Your task to perform on an android device: Go to location settings Image 0: 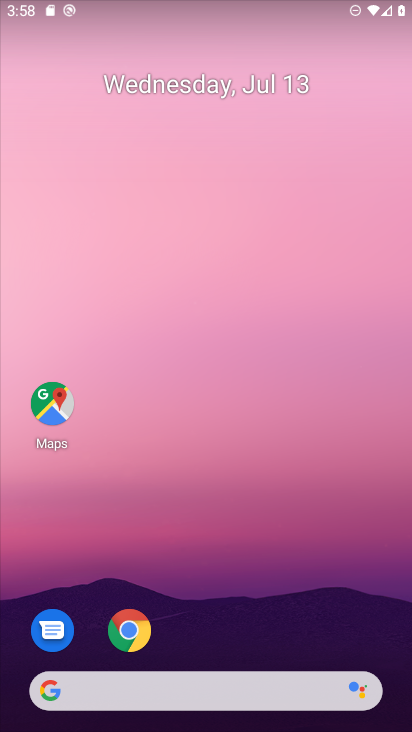
Step 0: drag from (214, 490) to (144, 13)
Your task to perform on an android device: Go to location settings Image 1: 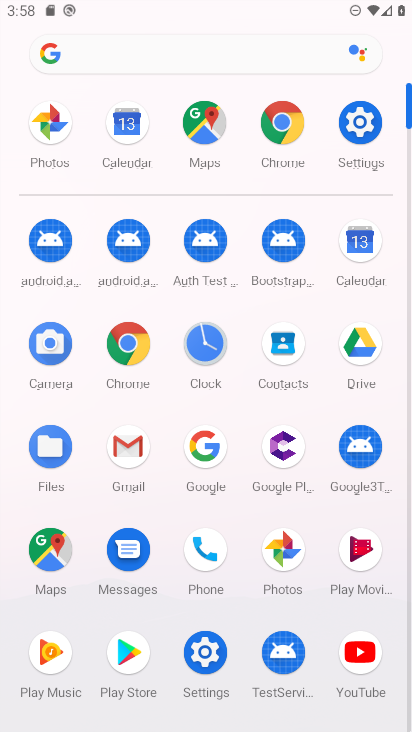
Step 1: click (358, 127)
Your task to perform on an android device: Go to location settings Image 2: 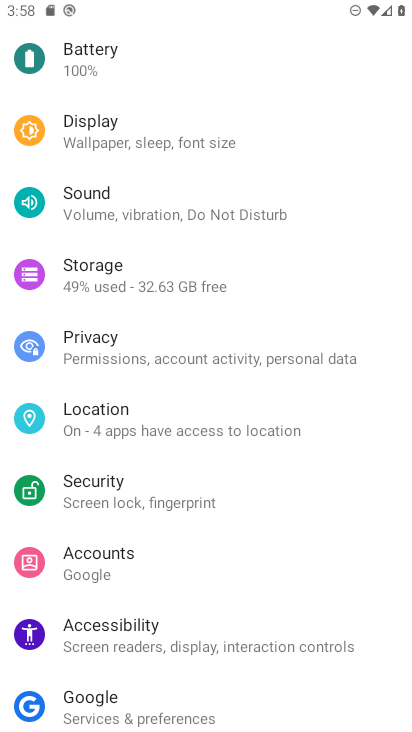
Step 2: click (82, 429)
Your task to perform on an android device: Go to location settings Image 3: 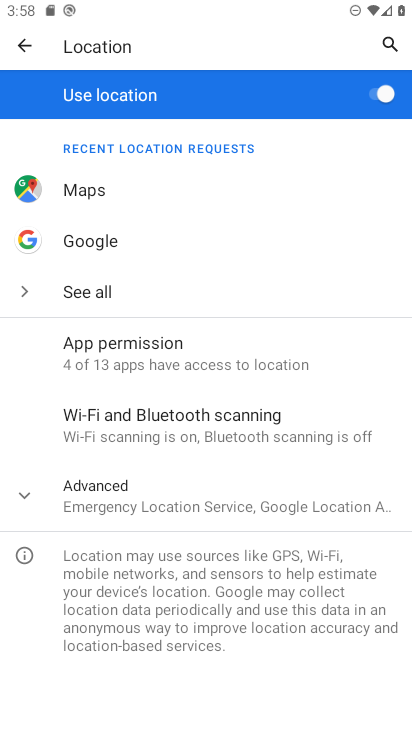
Step 3: task complete